Your task to perform on an android device: Open accessibility settings Image 0: 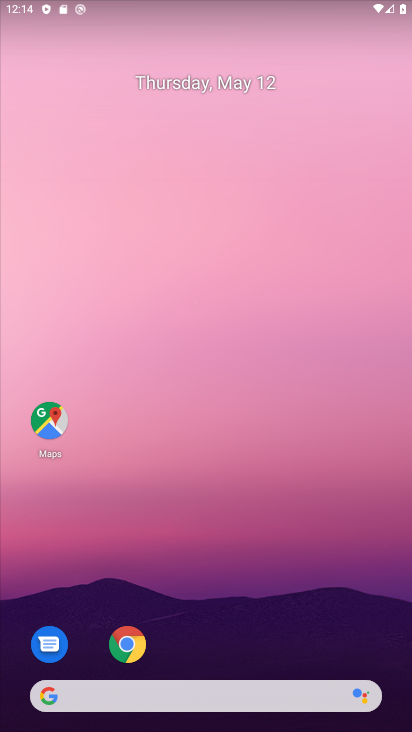
Step 0: drag from (251, 638) to (208, 101)
Your task to perform on an android device: Open accessibility settings Image 1: 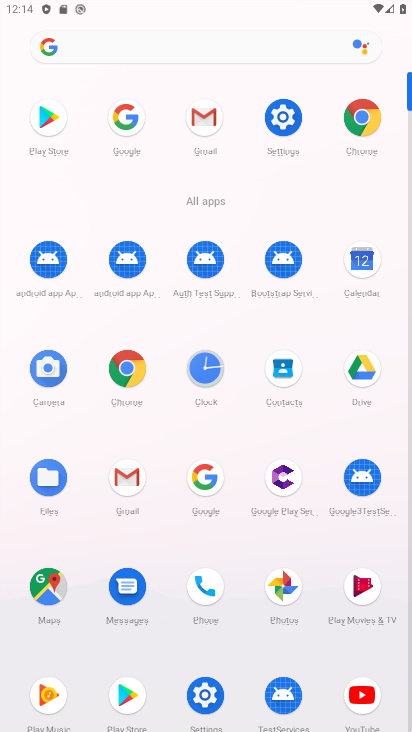
Step 1: click (286, 111)
Your task to perform on an android device: Open accessibility settings Image 2: 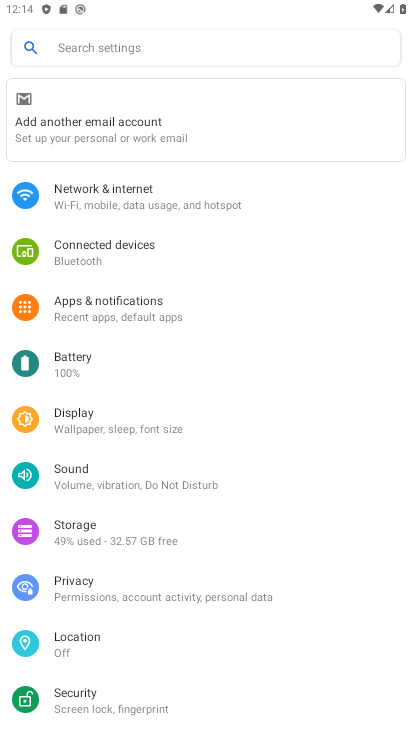
Step 2: drag from (181, 632) to (221, 247)
Your task to perform on an android device: Open accessibility settings Image 3: 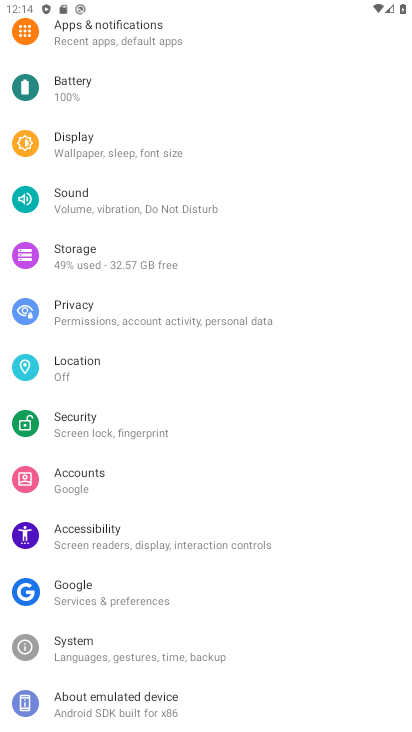
Step 3: drag from (170, 636) to (164, 466)
Your task to perform on an android device: Open accessibility settings Image 4: 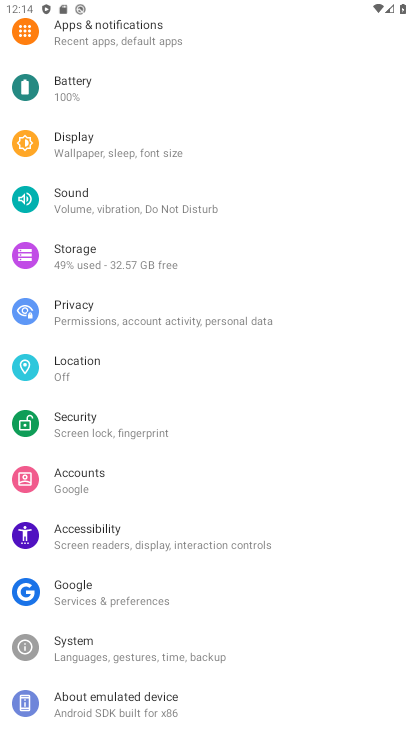
Step 4: click (167, 537)
Your task to perform on an android device: Open accessibility settings Image 5: 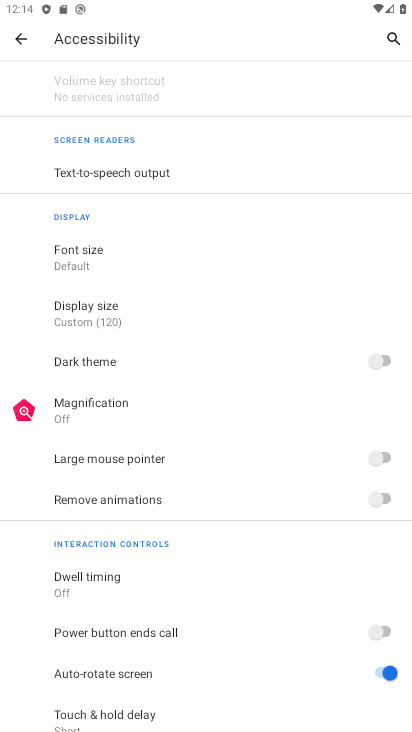
Step 5: task complete